Your task to perform on an android device: Open notification settings Image 0: 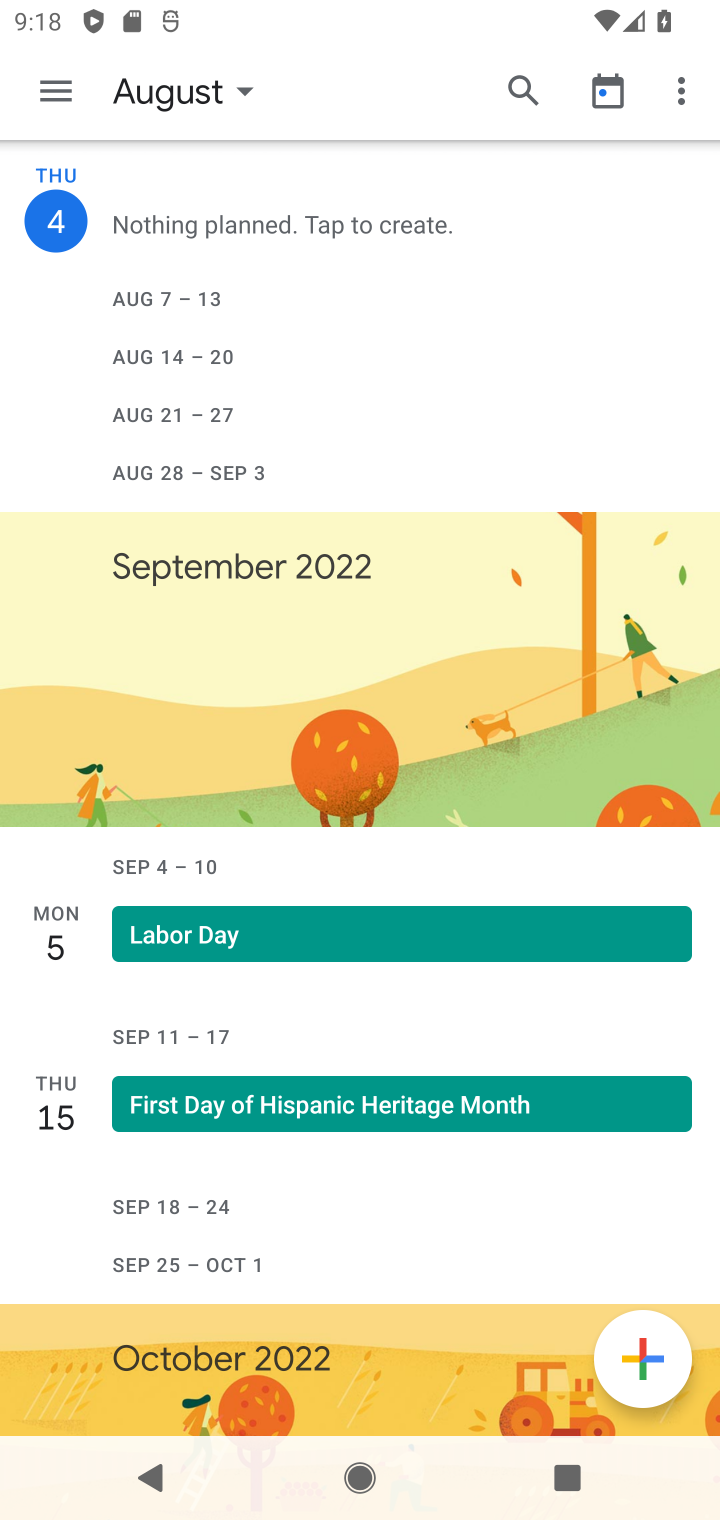
Step 0: press home button
Your task to perform on an android device: Open notification settings Image 1: 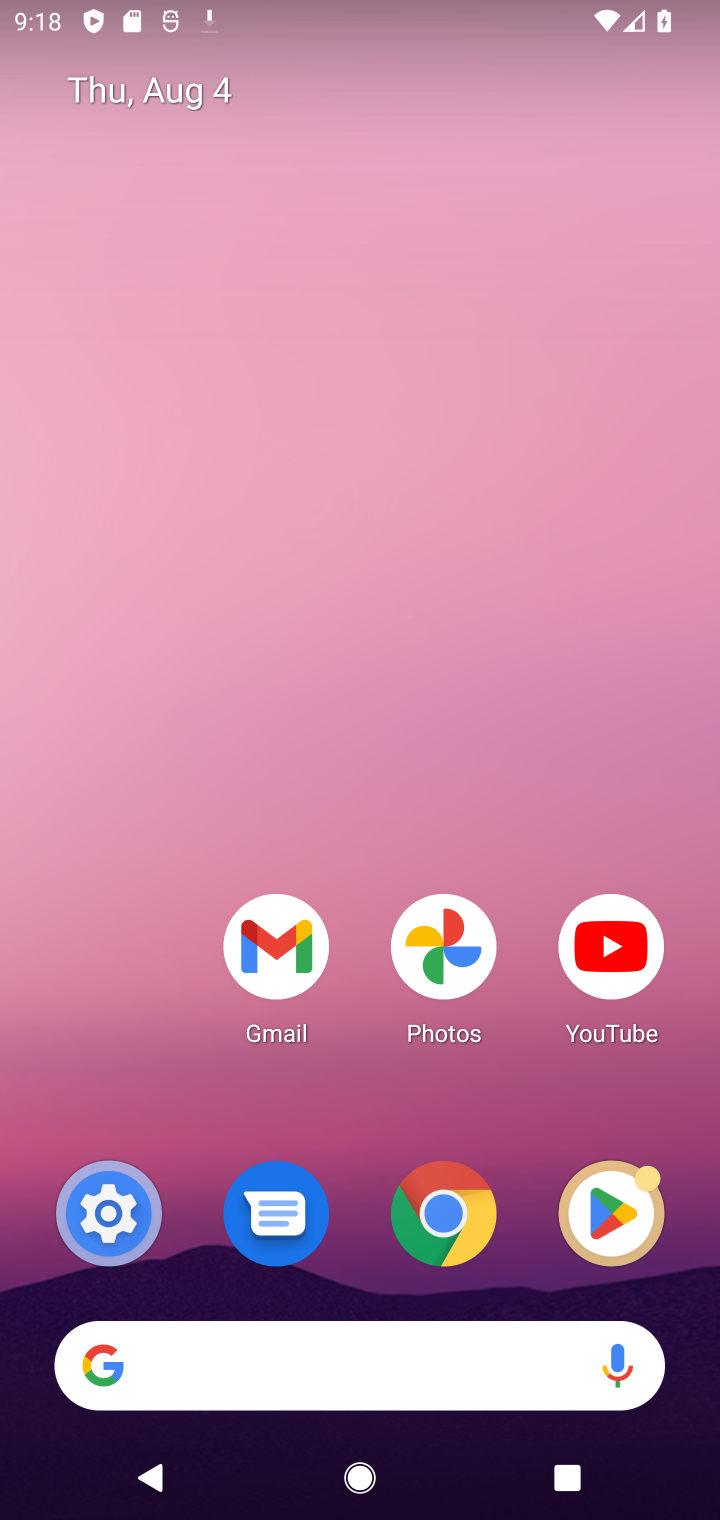
Step 1: drag from (362, 1094) to (225, 17)
Your task to perform on an android device: Open notification settings Image 2: 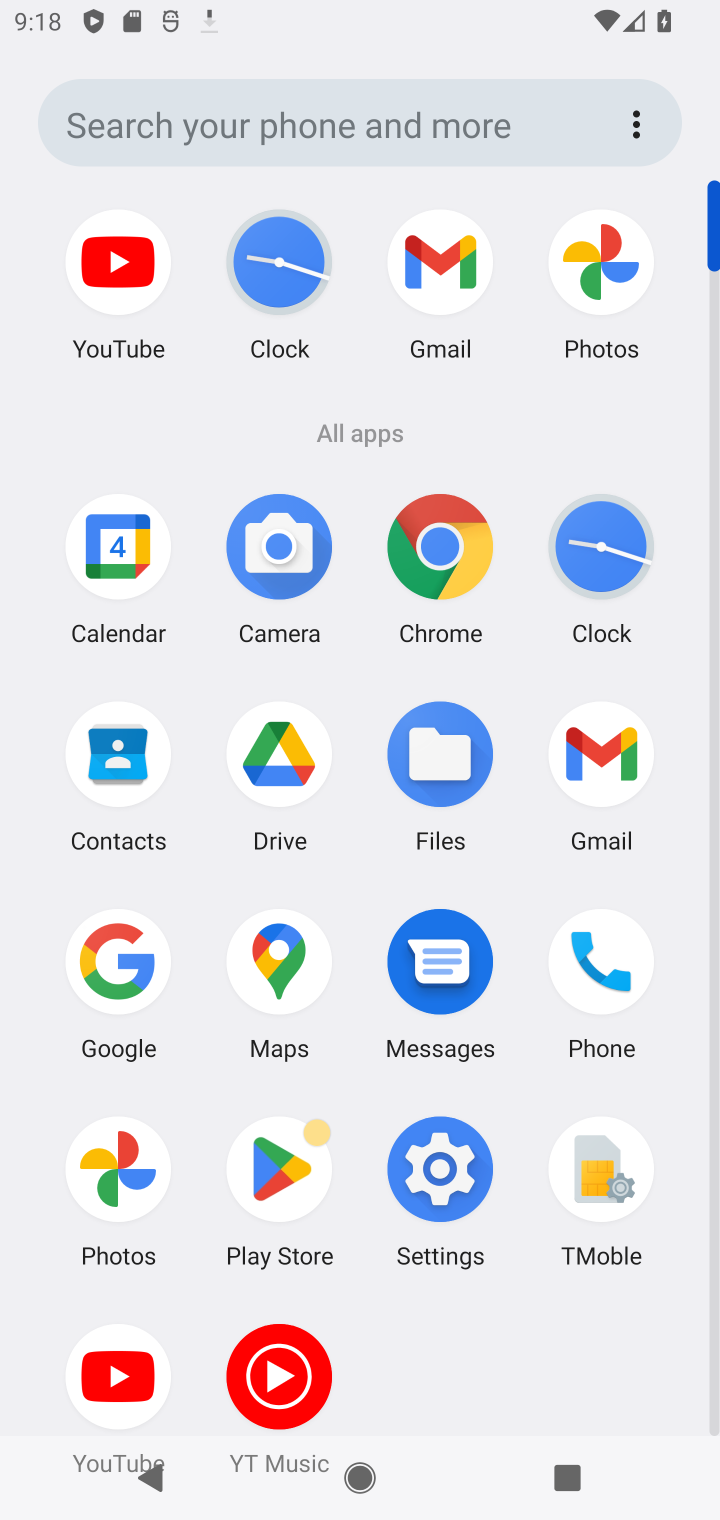
Step 2: click (442, 1147)
Your task to perform on an android device: Open notification settings Image 3: 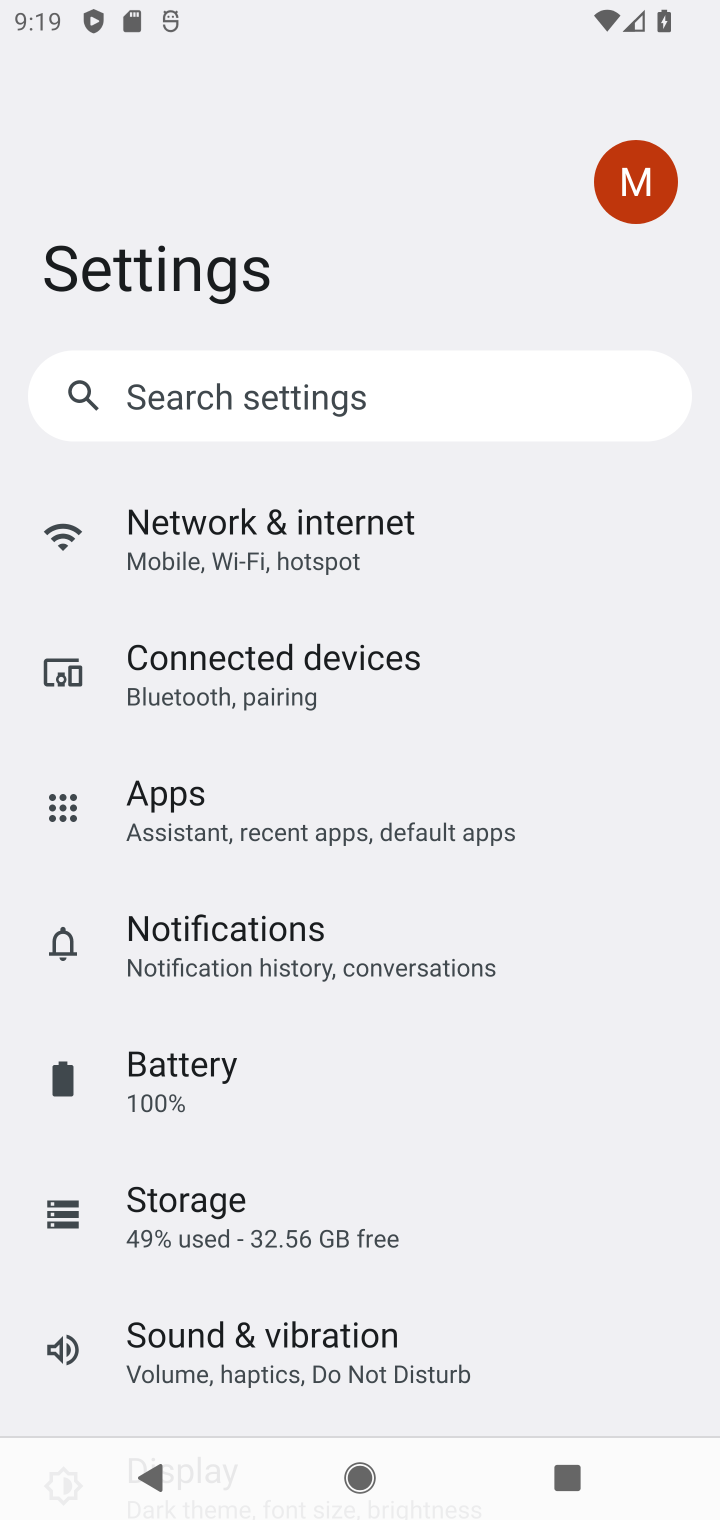
Step 3: click (312, 969)
Your task to perform on an android device: Open notification settings Image 4: 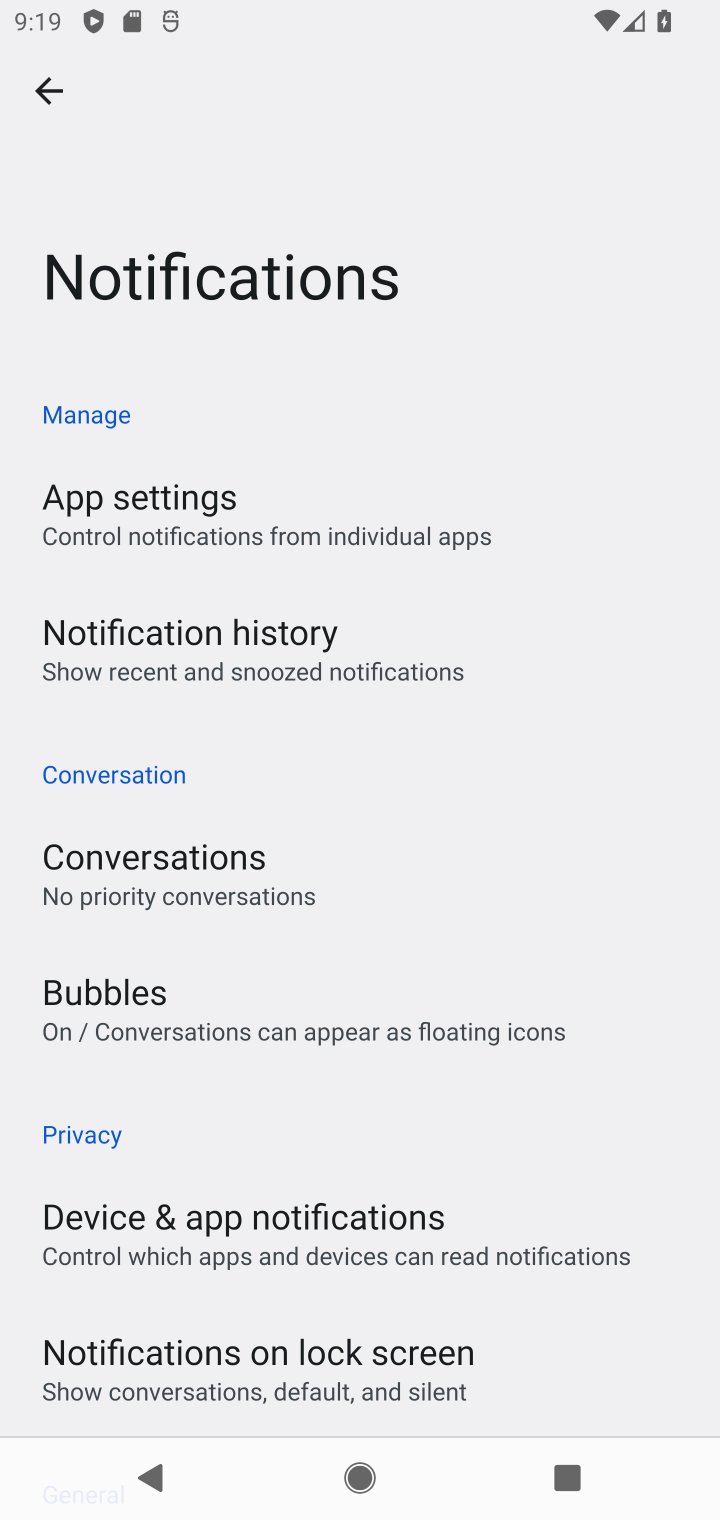
Step 4: task complete